Your task to perform on an android device: Open wifi settings Image 0: 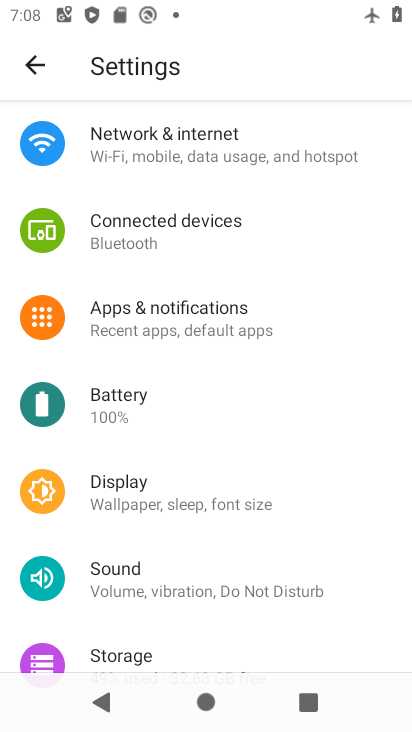
Step 0: press home button
Your task to perform on an android device: Open wifi settings Image 1: 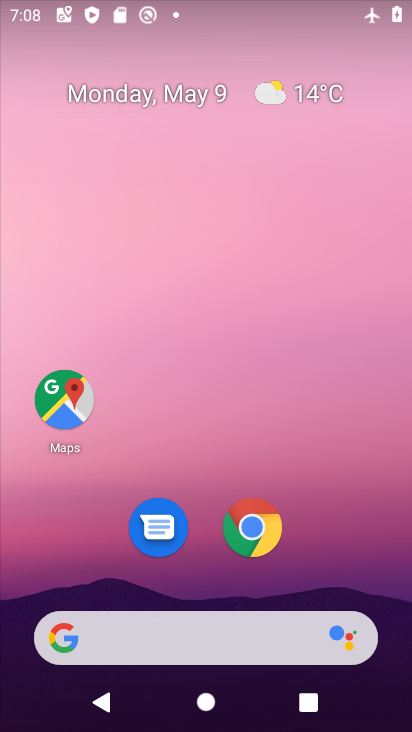
Step 1: drag from (339, 562) to (221, 12)
Your task to perform on an android device: Open wifi settings Image 2: 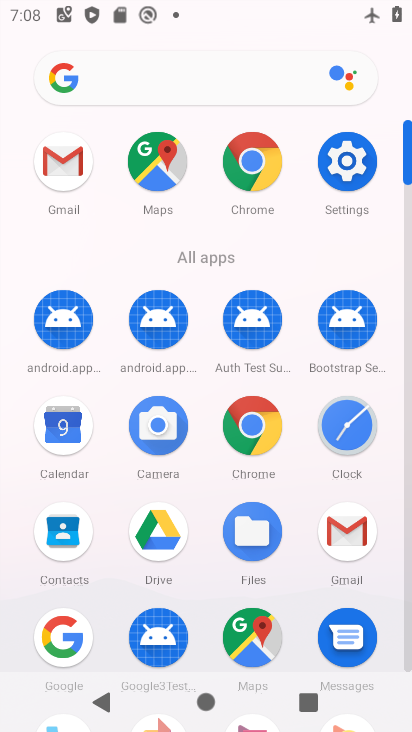
Step 2: click (348, 164)
Your task to perform on an android device: Open wifi settings Image 3: 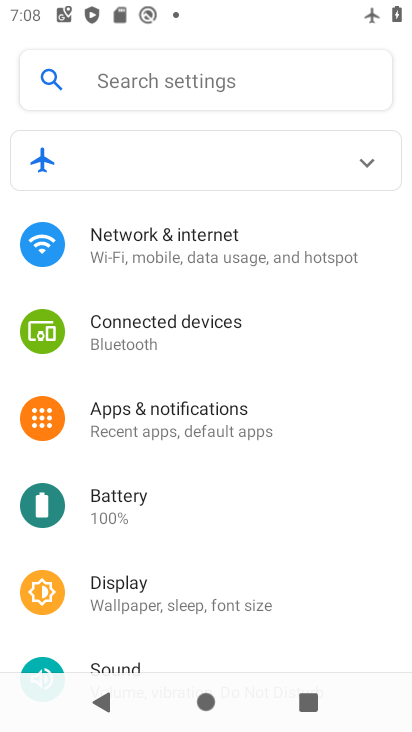
Step 3: click (201, 243)
Your task to perform on an android device: Open wifi settings Image 4: 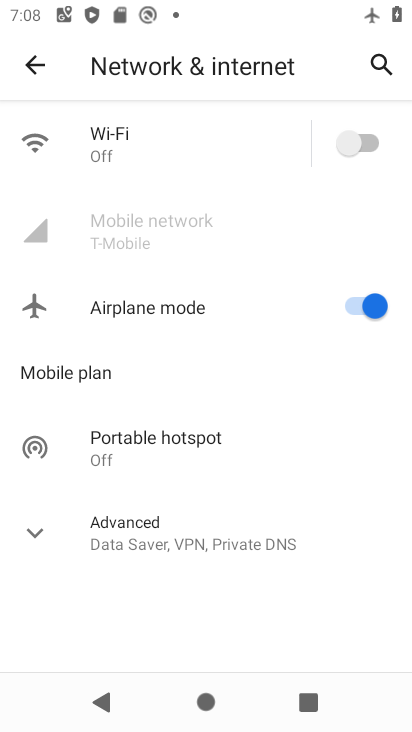
Step 4: click (103, 150)
Your task to perform on an android device: Open wifi settings Image 5: 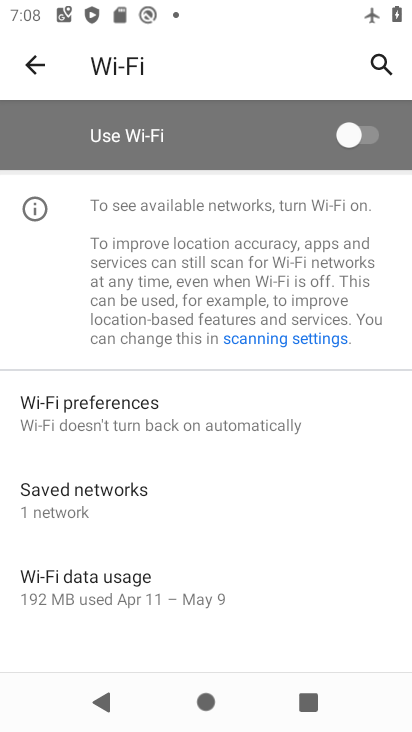
Step 5: task complete